Your task to perform on an android device: check out phone information Image 0: 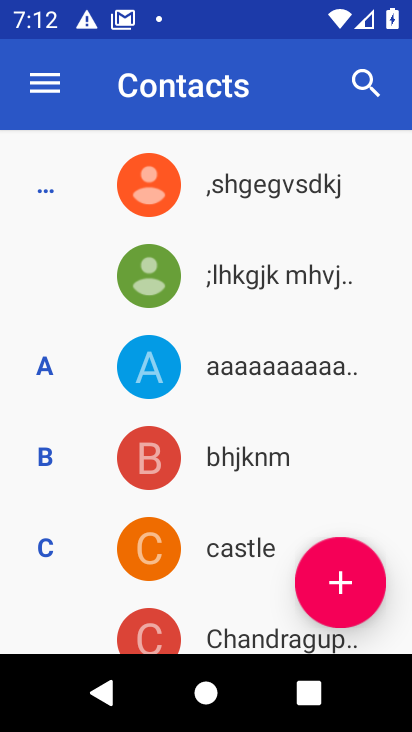
Step 0: press home button
Your task to perform on an android device: check out phone information Image 1: 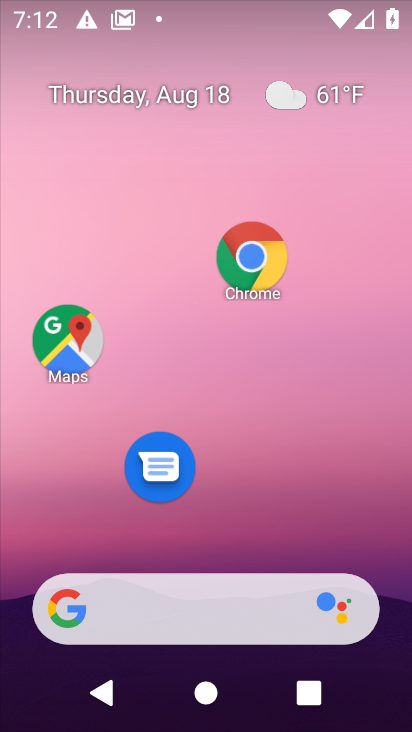
Step 1: task complete